Your task to perform on an android device: Check the weather Image 0: 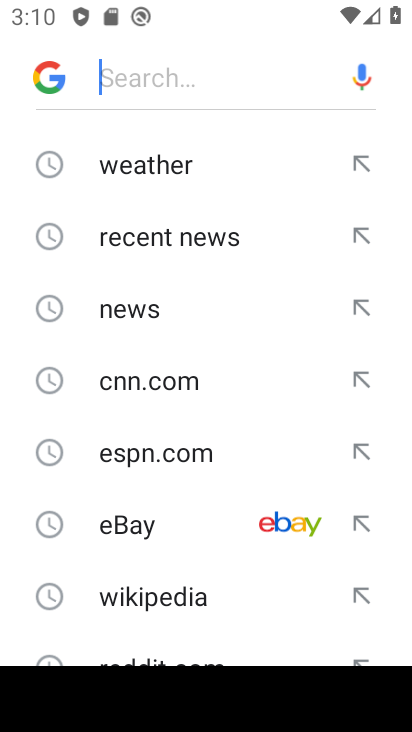
Step 0: click (198, 176)
Your task to perform on an android device: Check the weather Image 1: 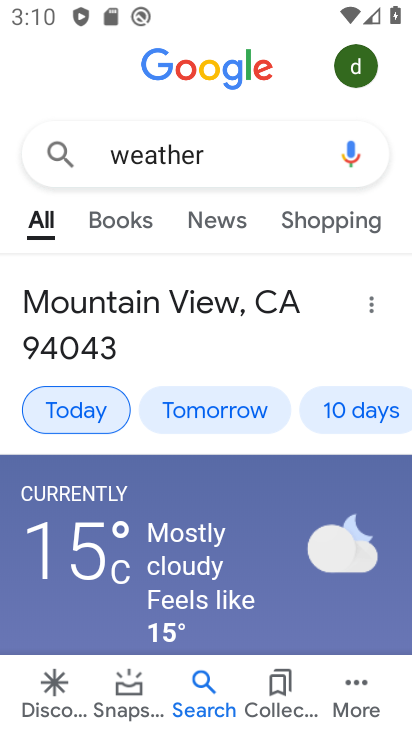
Step 1: task complete